Your task to perform on an android device: choose inbox layout in the gmail app Image 0: 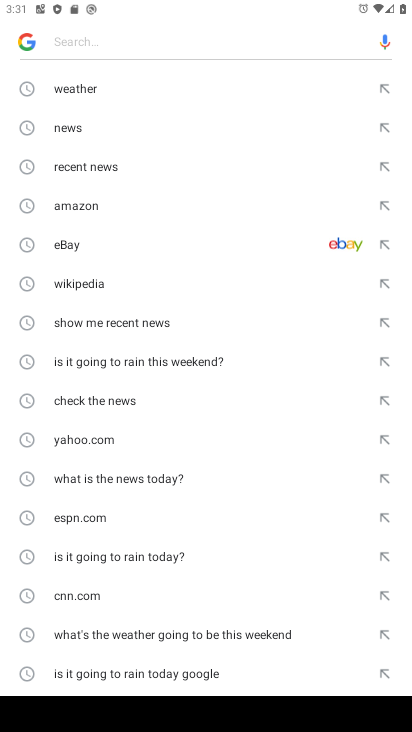
Step 0: press home button
Your task to perform on an android device: choose inbox layout in the gmail app Image 1: 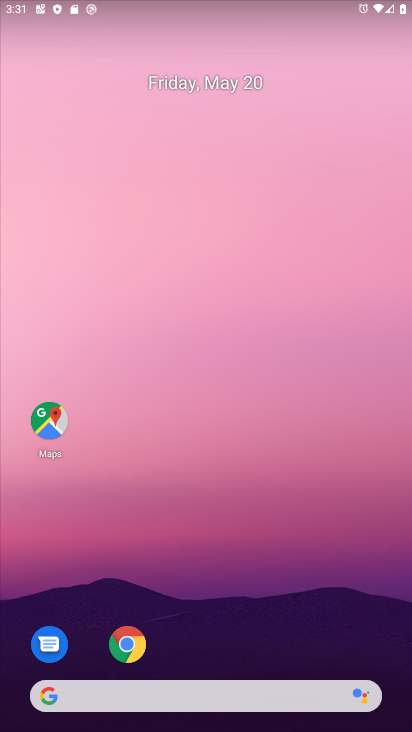
Step 1: drag from (223, 595) to (148, 6)
Your task to perform on an android device: choose inbox layout in the gmail app Image 2: 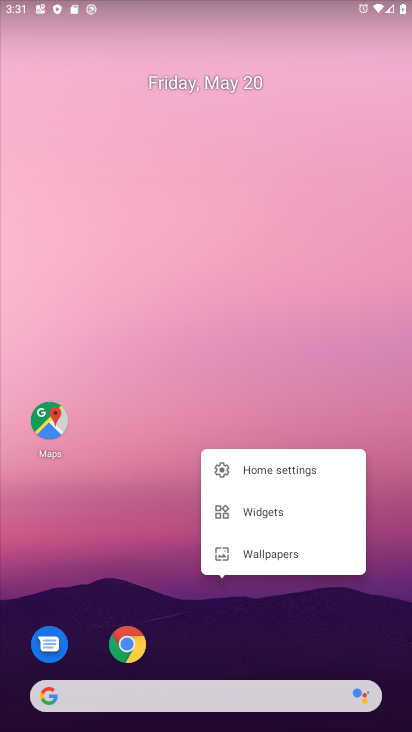
Step 2: click (96, 185)
Your task to perform on an android device: choose inbox layout in the gmail app Image 3: 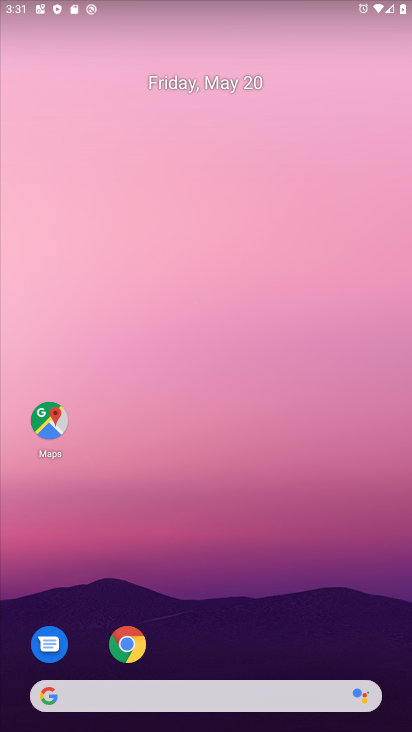
Step 3: drag from (299, 645) to (287, 266)
Your task to perform on an android device: choose inbox layout in the gmail app Image 4: 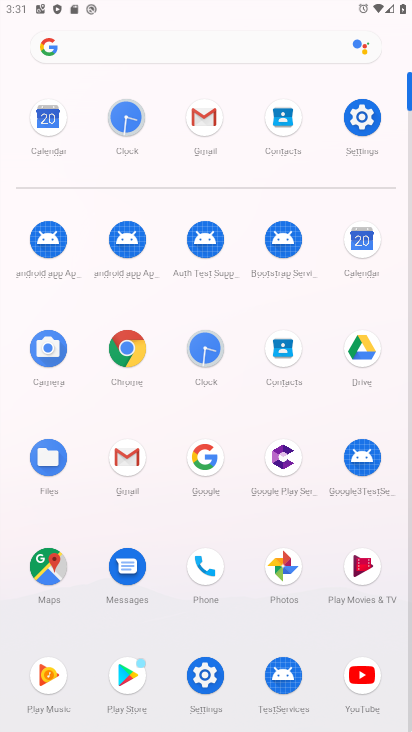
Step 4: click (214, 136)
Your task to perform on an android device: choose inbox layout in the gmail app Image 5: 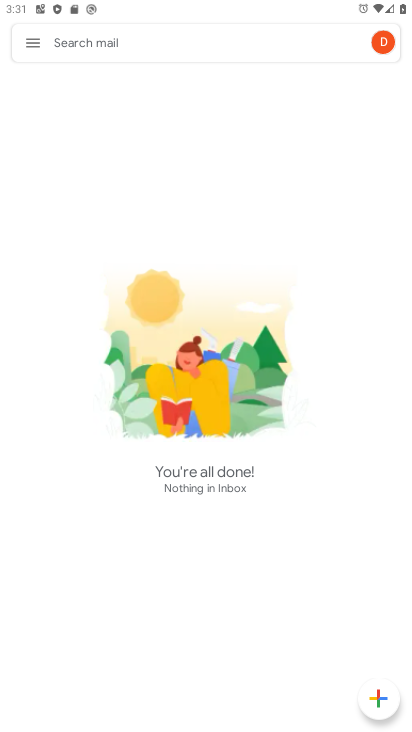
Step 5: click (24, 34)
Your task to perform on an android device: choose inbox layout in the gmail app Image 6: 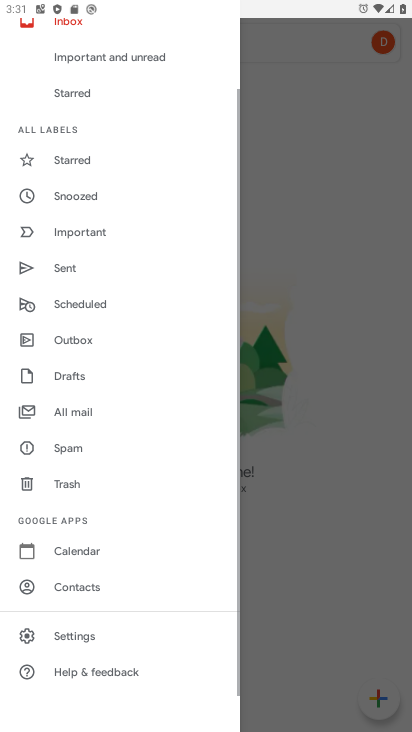
Step 6: drag from (40, 74) to (46, 138)
Your task to perform on an android device: choose inbox layout in the gmail app Image 7: 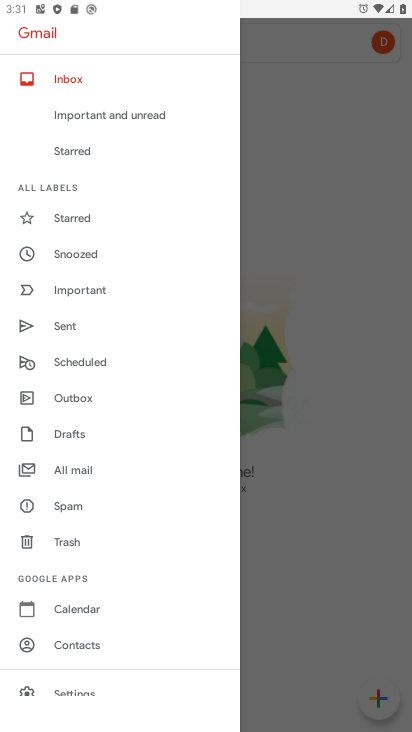
Step 7: click (46, 79)
Your task to perform on an android device: choose inbox layout in the gmail app Image 8: 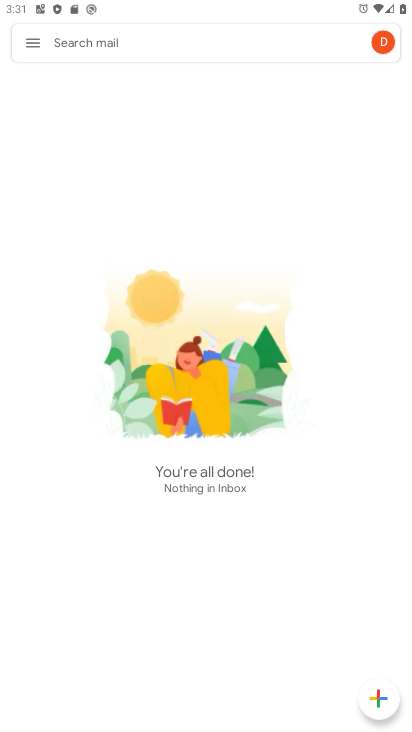
Step 8: task complete